Your task to perform on an android device: Add "energizer triple a" to the cart on target.com, then select checkout. Image 0: 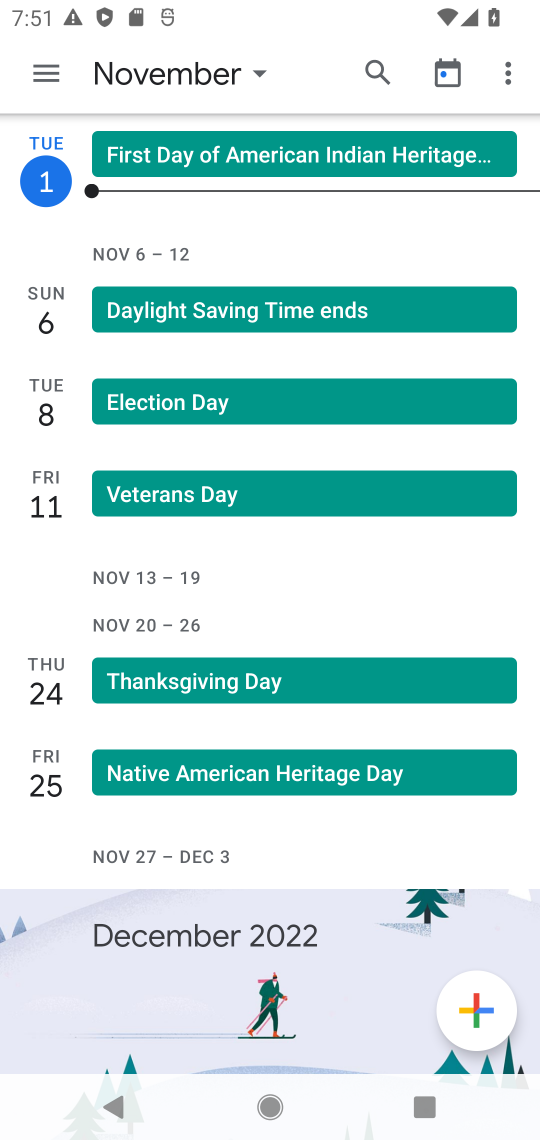
Step 0: press home button
Your task to perform on an android device: Add "energizer triple a" to the cart on target.com, then select checkout. Image 1: 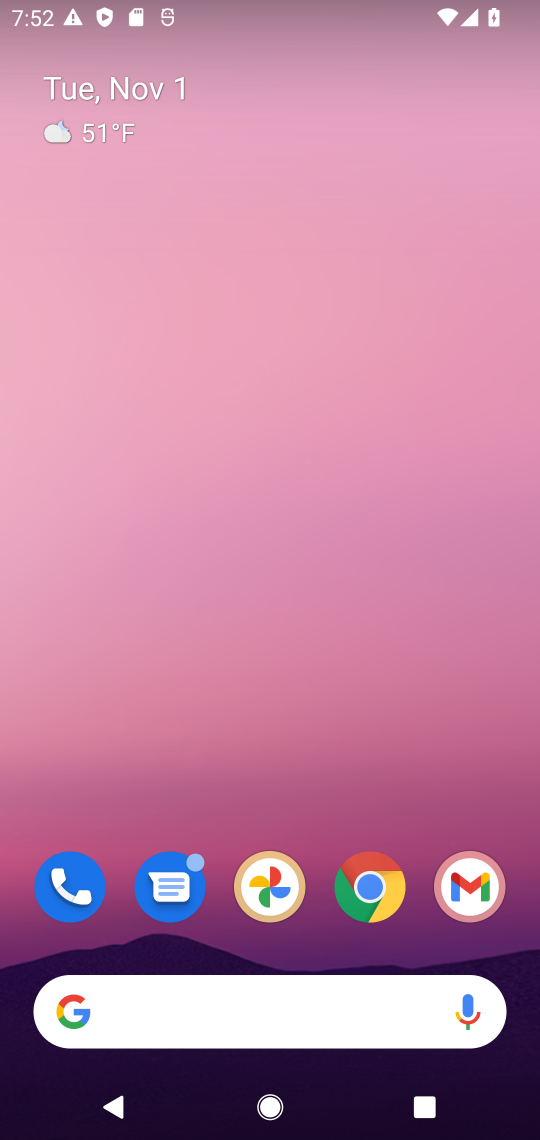
Step 1: drag from (218, 893) to (216, 195)
Your task to perform on an android device: Add "energizer triple a" to the cart on target.com, then select checkout. Image 2: 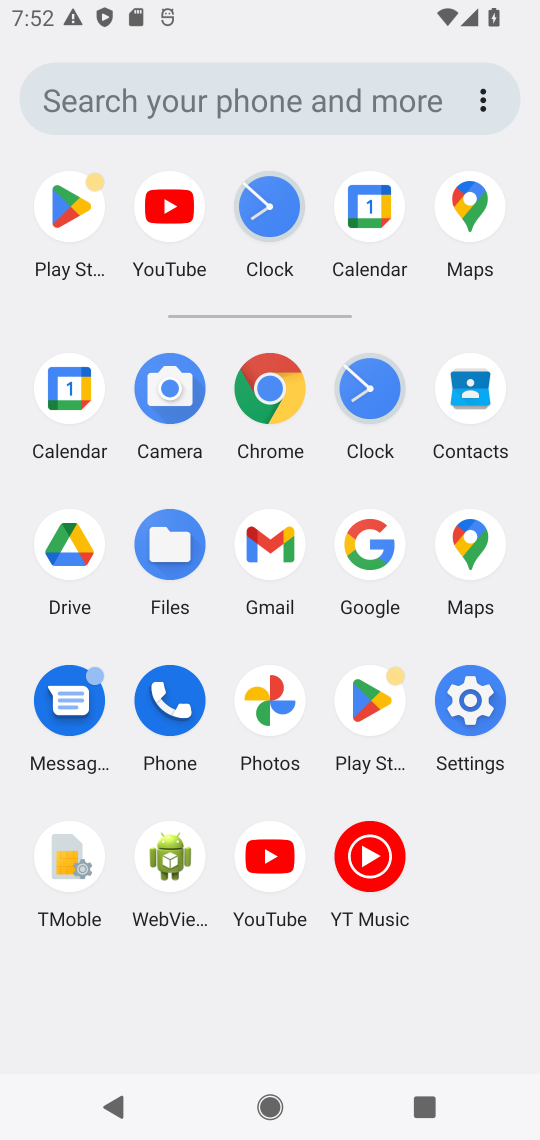
Step 2: click (362, 544)
Your task to perform on an android device: Add "energizer triple a" to the cart on target.com, then select checkout. Image 3: 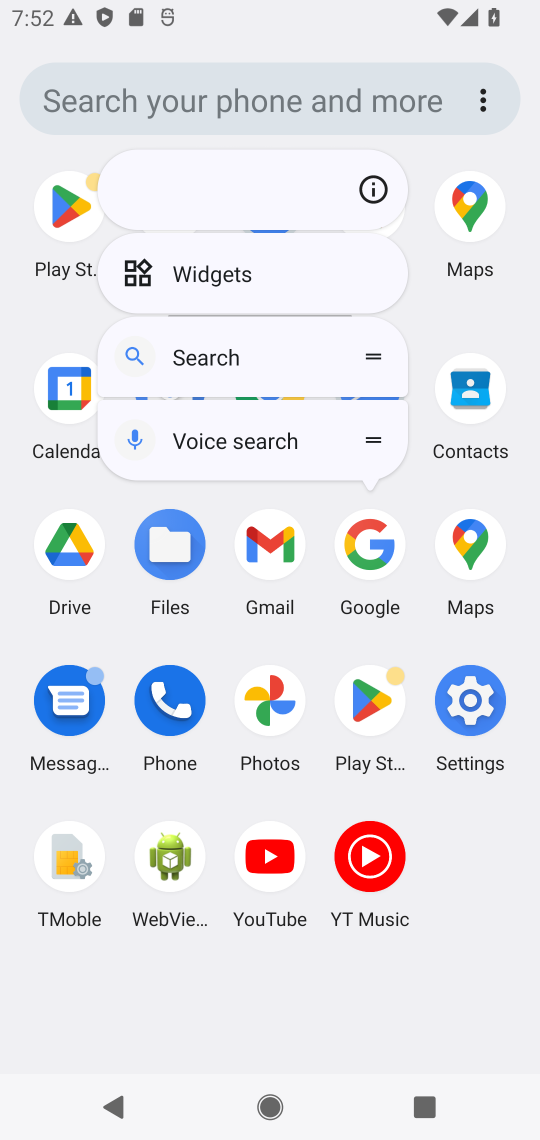
Step 3: click (362, 544)
Your task to perform on an android device: Add "energizer triple a" to the cart on target.com, then select checkout. Image 4: 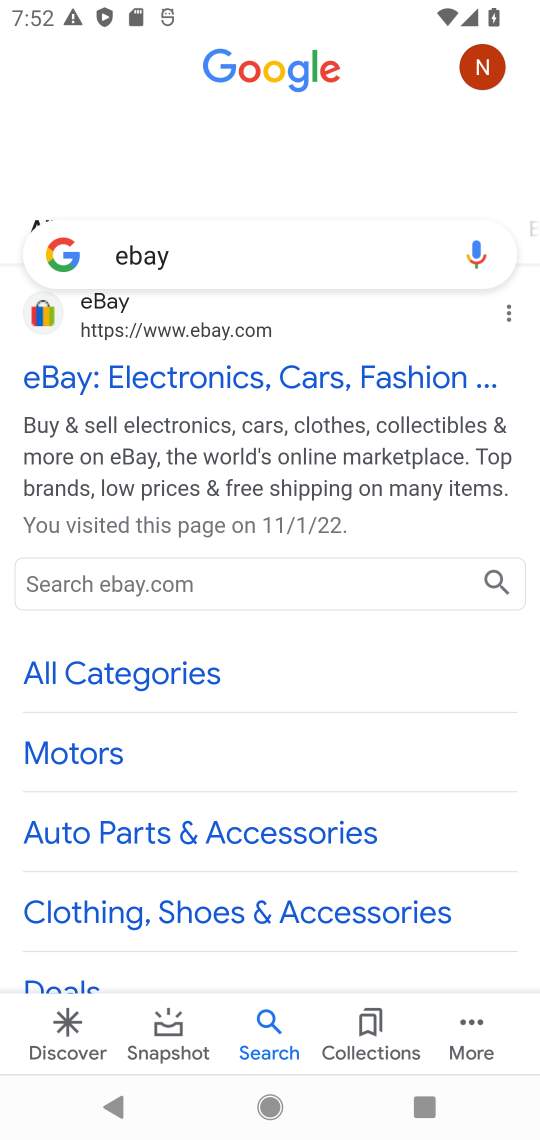
Step 4: click (212, 259)
Your task to perform on an android device: Add "energizer triple a" to the cart on target.com, then select checkout. Image 5: 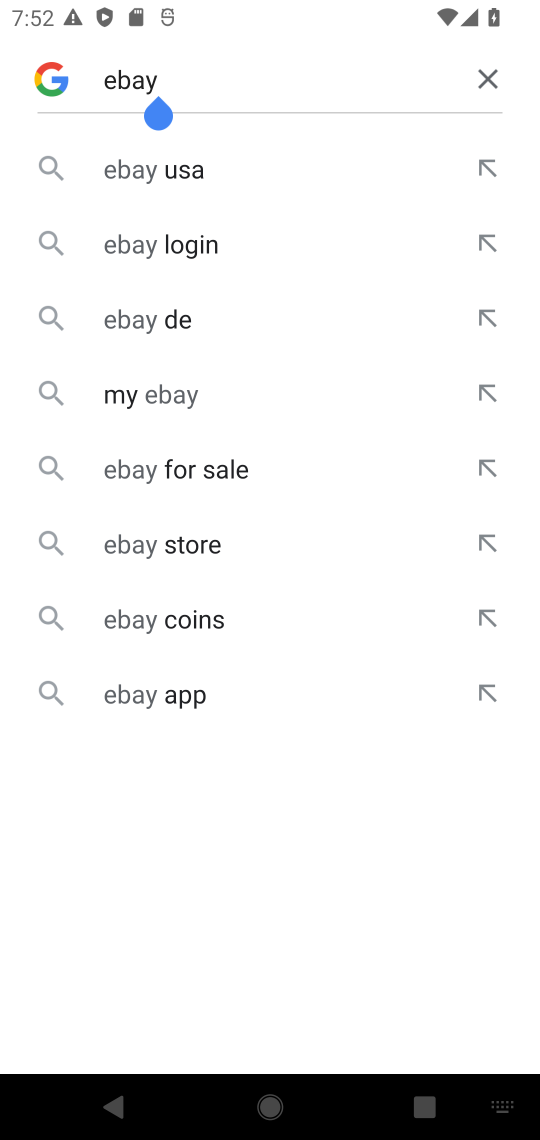
Step 5: click (467, 65)
Your task to perform on an android device: Add "energizer triple a" to the cart on target.com, then select checkout. Image 6: 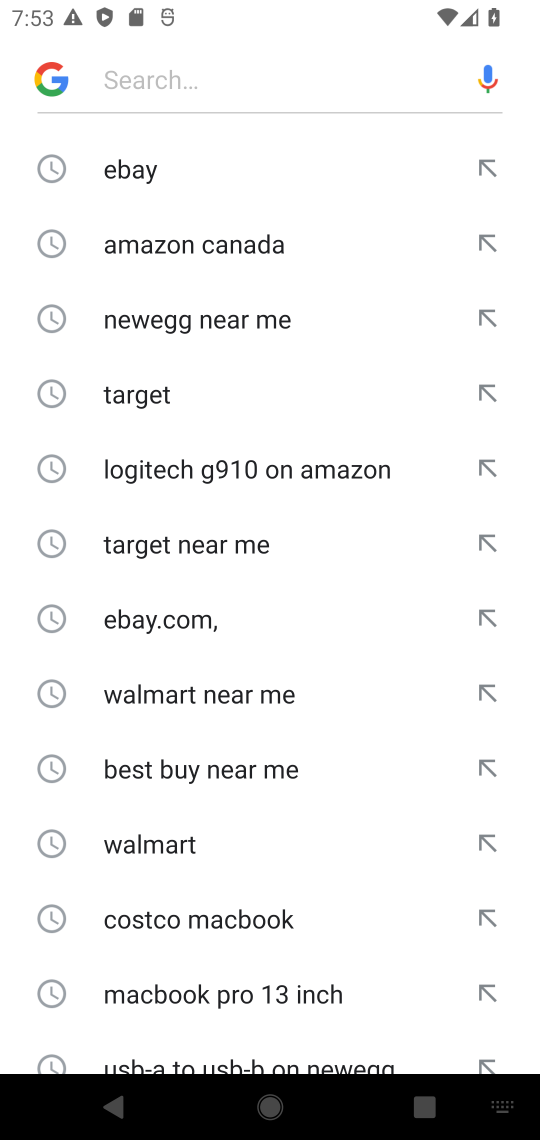
Step 6: click (243, 79)
Your task to perform on an android device: Add "energizer triple a" to the cart on target.com, then select checkout. Image 7: 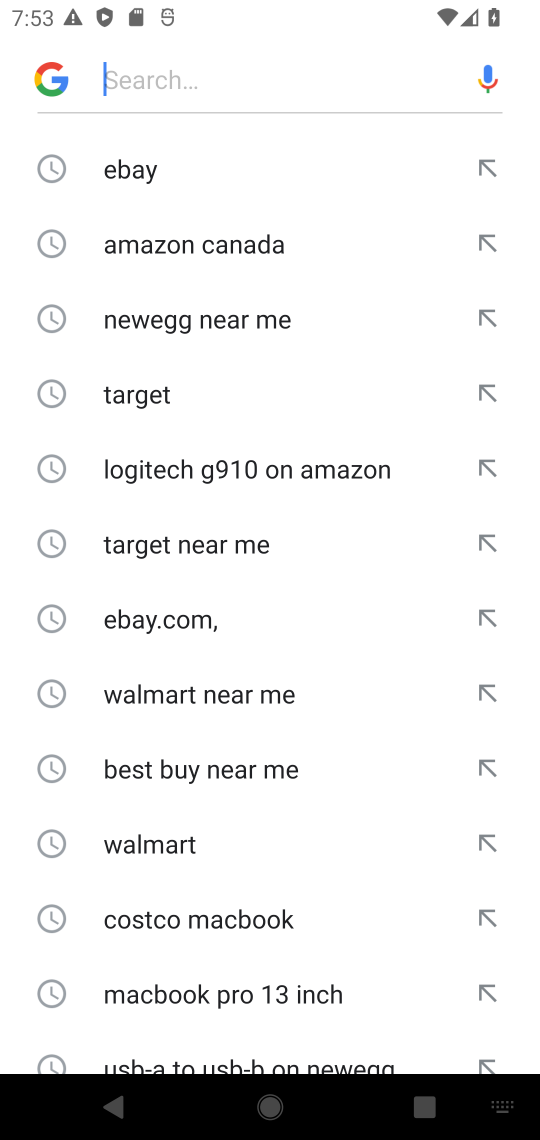
Step 7: type "target "
Your task to perform on an android device: Add "energizer triple a" to the cart on target.com, then select checkout. Image 8: 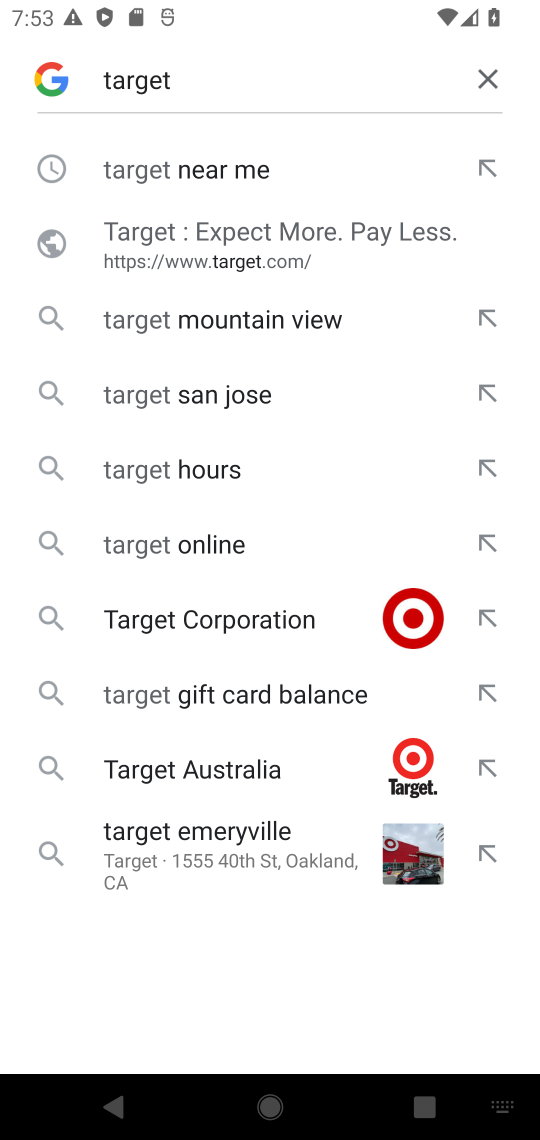
Step 8: click (184, 163)
Your task to perform on an android device: Add "energizer triple a" to the cart on target.com, then select checkout. Image 9: 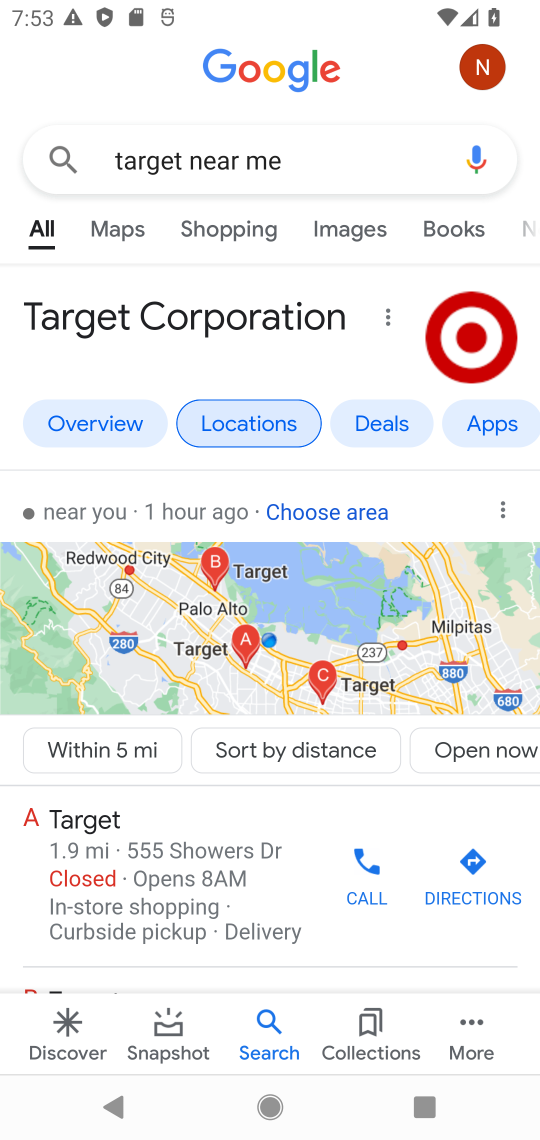
Step 9: drag from (192, 898) to (262, 424)
Your task to perform on an android device: Add "energizer triple a" to the cart on target.com, then select checkout. Image 10: 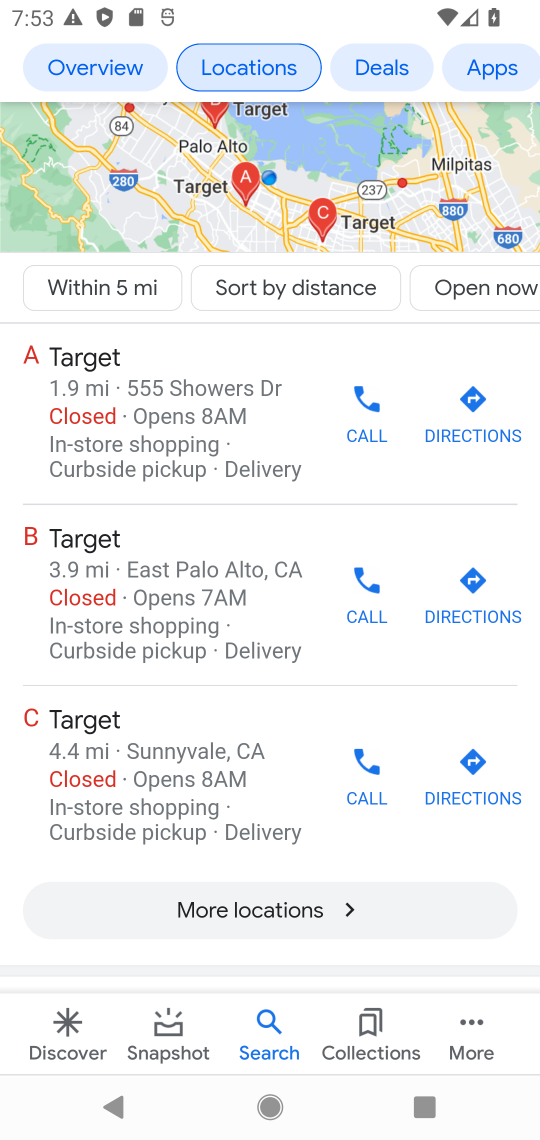
Step 10: drag from (156, 856) to (218, 396)
Your task to perform on an android device: Add "energizer triple a" to the cart on target.com, then select checkout. Image 11: 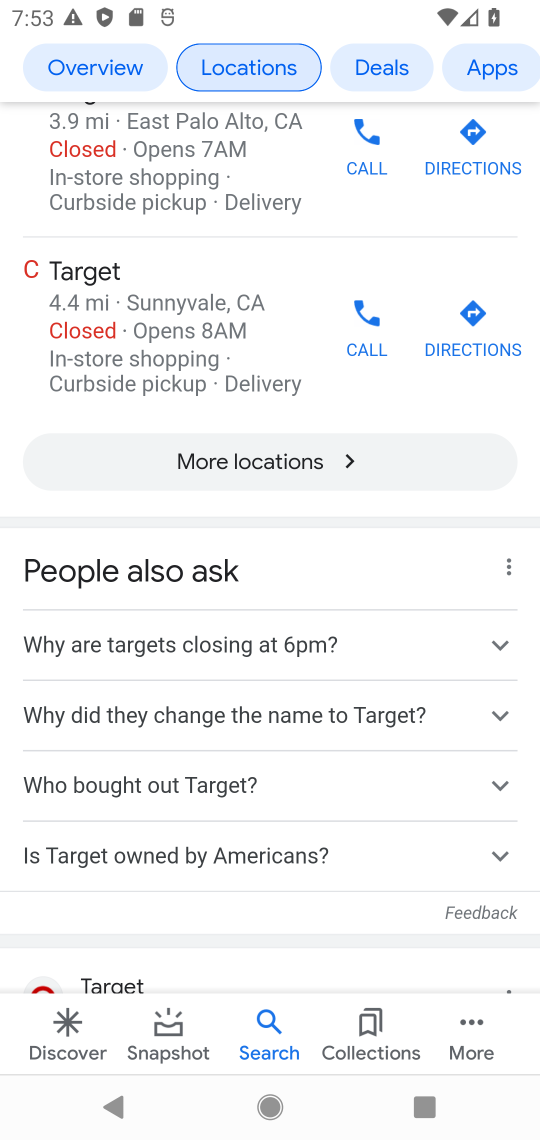
Step 11: drag from (149, 811) to (193, 575)
Your task to perform on an android device: Add "energizer triple a" to the cart on target.com, then select checkout. Image 12: 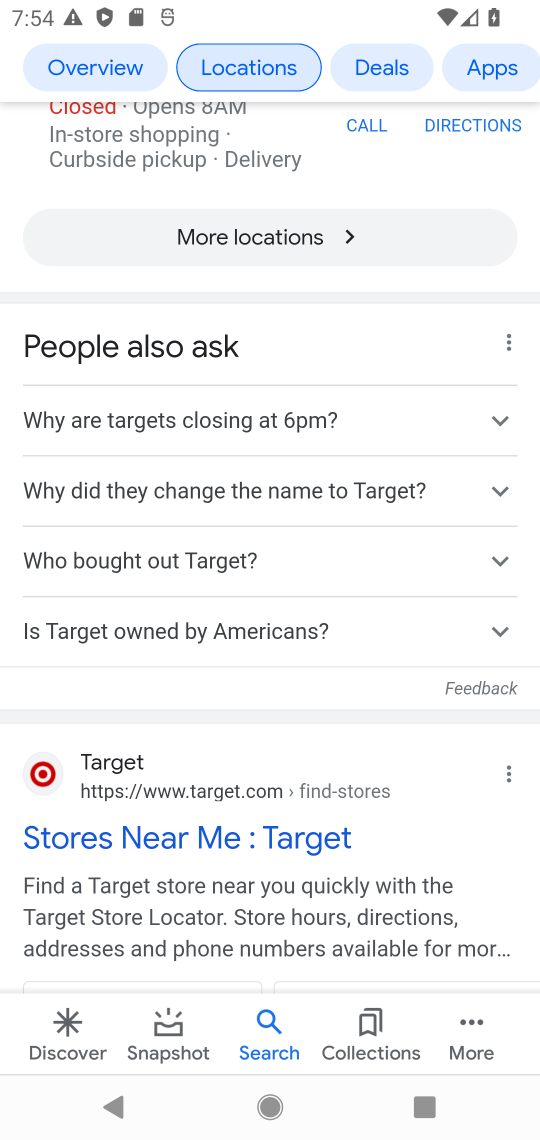
Step 12: click (34, 771)
Your task to perform on an android device: Add "energizer triple a" to the cart on target.com, then select checkout. Image 13: 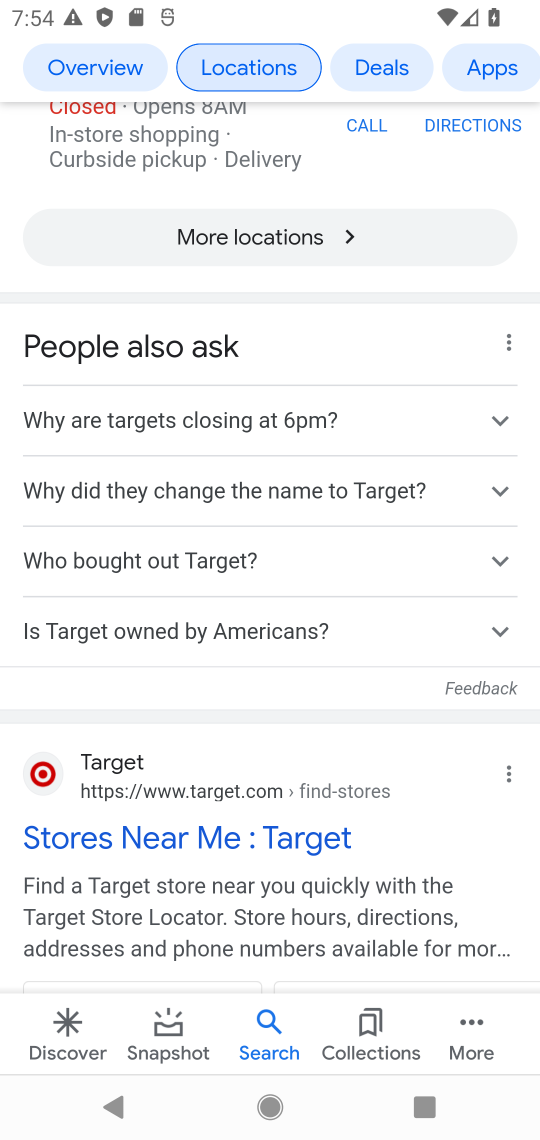
Step 13: click (143, 842)
Your task to perform on an android device: Add "energizer triple a" to the cart on target.com, then select checkout. Image 14: 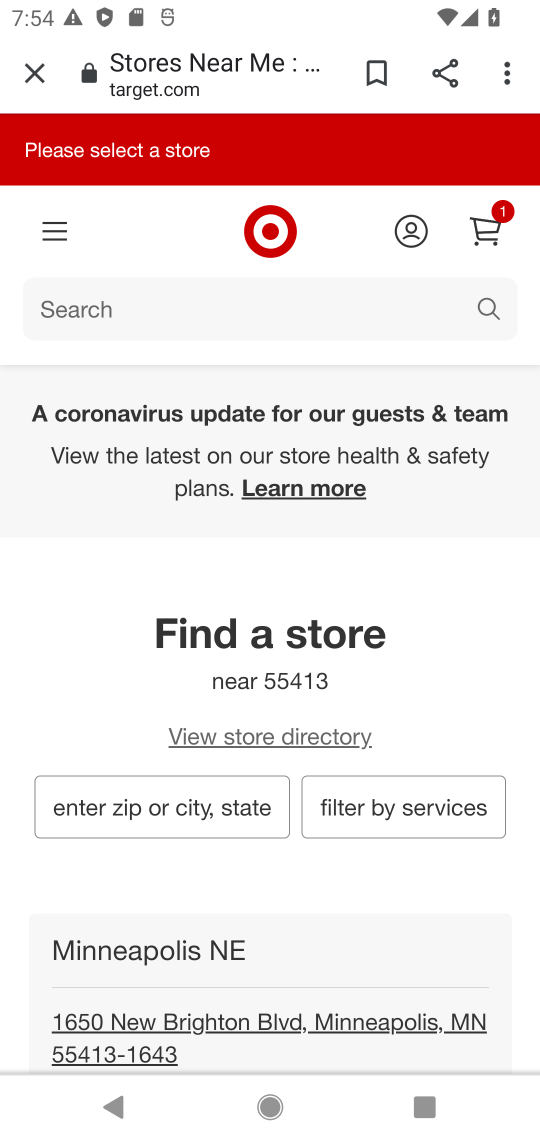
Step 14: click (197, 290)
Your task to perform on an android device: Add "energizer triple a" to the cart on target.com, then select checkout. Image 15: 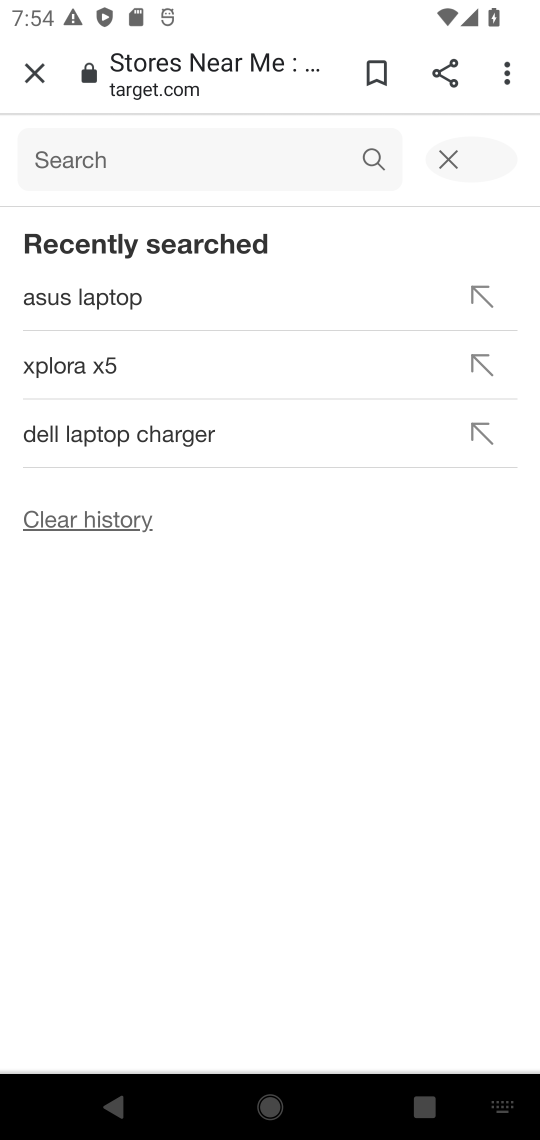
Step 15: type "energizer triple  "
Your task to perform on an android device: Add "energizer triple a" to the cart on target.com, then select checkout. Image 16: 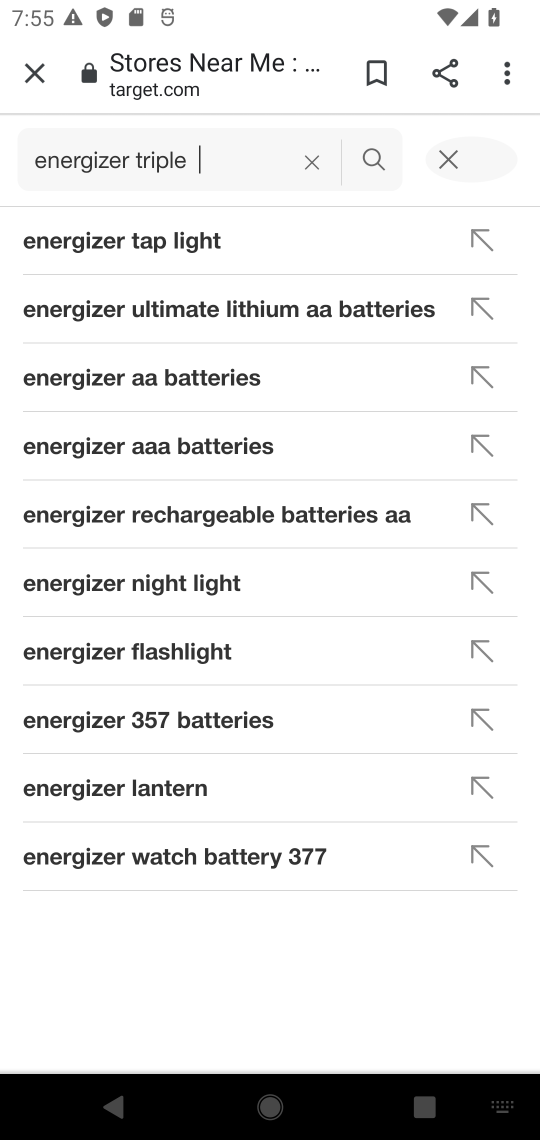
Step 16: click (252, 376)
Your task to perform on an android device: Add "energizer triple a" to the cart on target.com, then select checkout. Image 17: 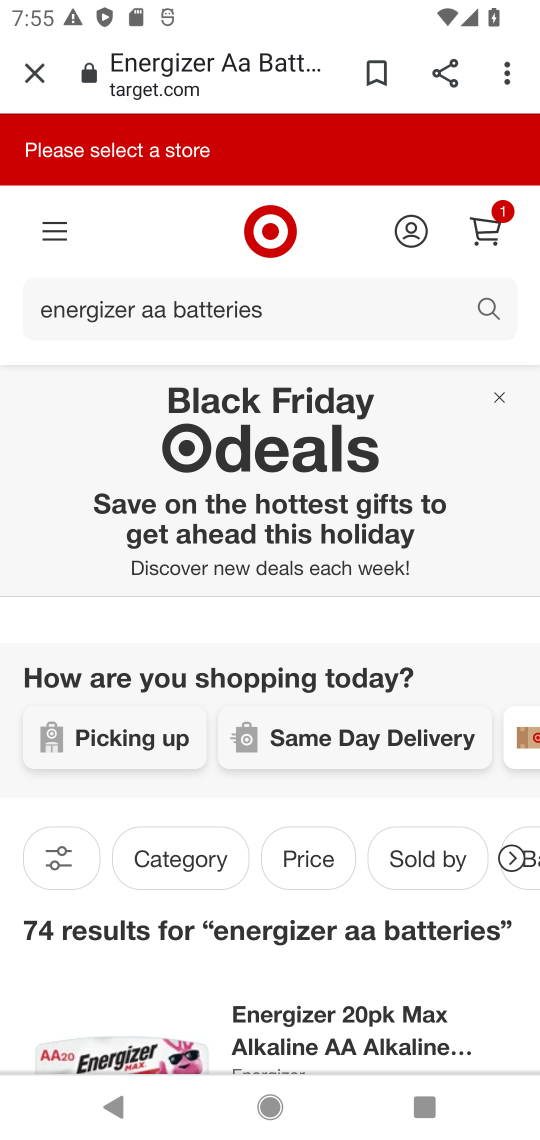
Step 17: drag from (294, 883) to (277, 216)
Your task to perform on an android device: Add "energizer triple a" to the cart on target.com, then select checkout. Image 18: 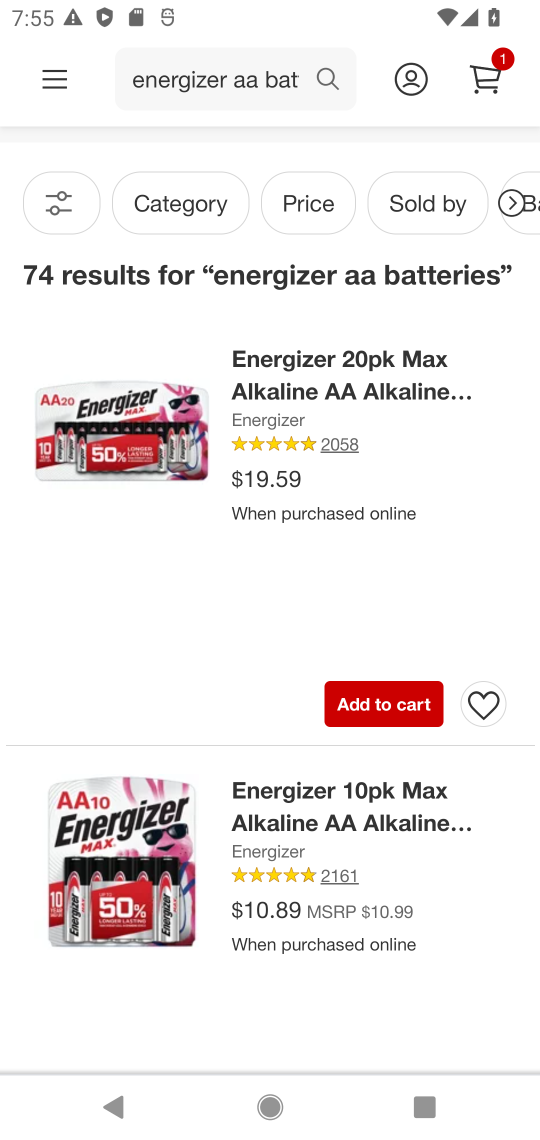
Step 18: click (372, 704)
Your task to perform on an android device: Add "energizer triple a" to the cart on target.com, then select checkout. Image 19: 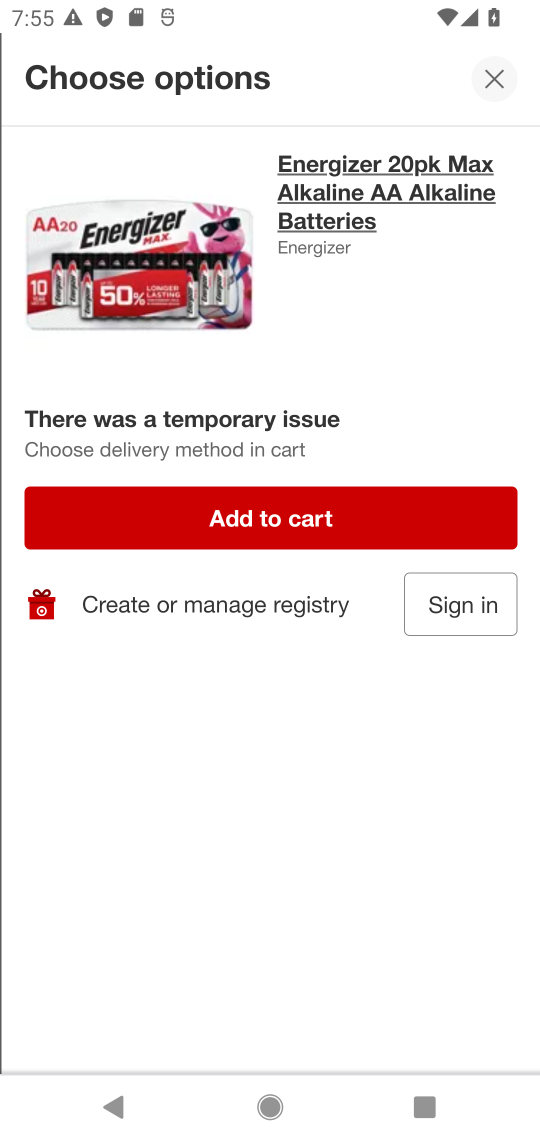
Step 19: click (285, 516)
Your task to perform on an android device: Add "energizer triple a" to the cart on target.com, then select checkout. Image 20: 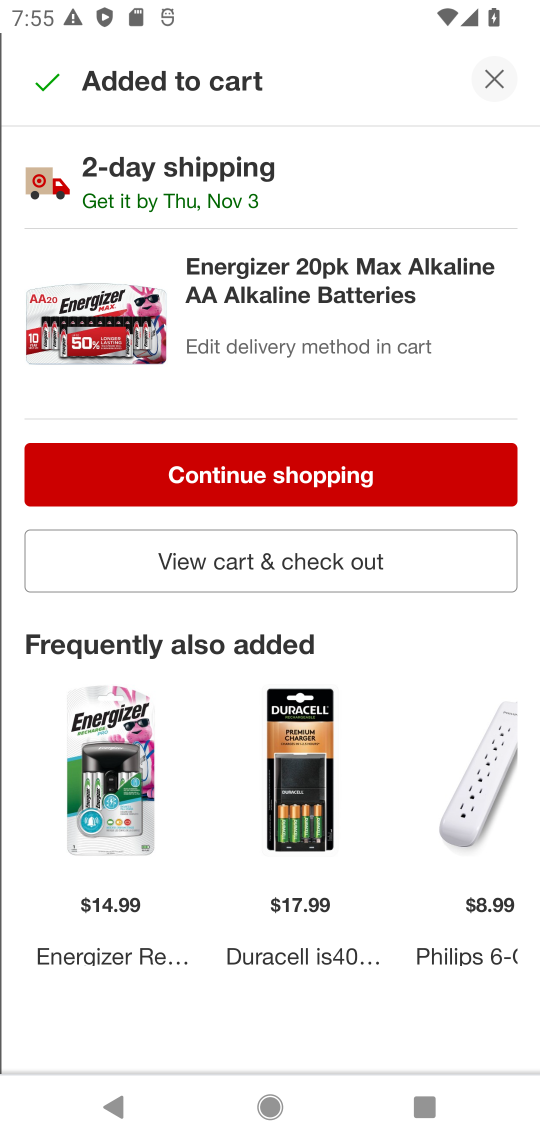
Step 20: task complete